Your task to perform on an android device: Go to display settings Image 0: 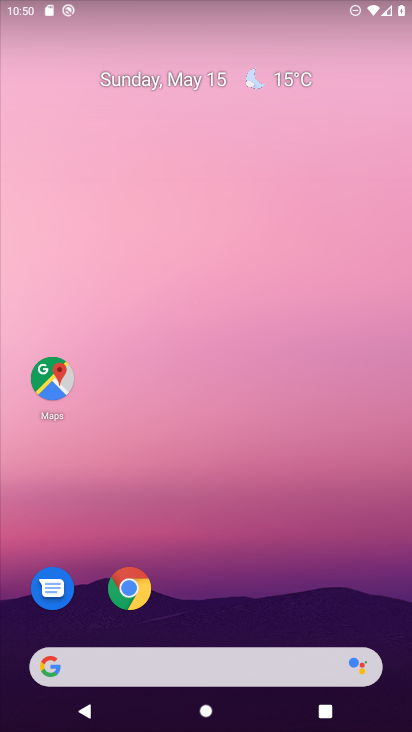
Step 0: drag from (234, 655) to (349, 5)
Your task to perform on an android device: Go to display settings Image 1: 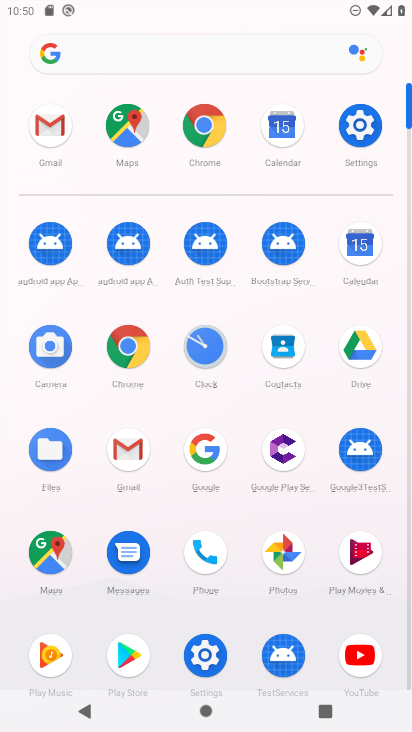
Step 1: click (363, 129)
Your task to perform on an android device: Go to display settings Image 2: 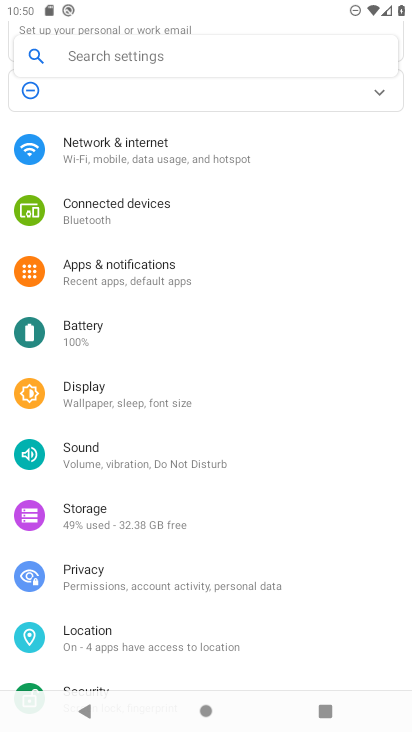
Step 2: click (110, 394)
Your task to perform on an android device: Go to display settings Image 3: 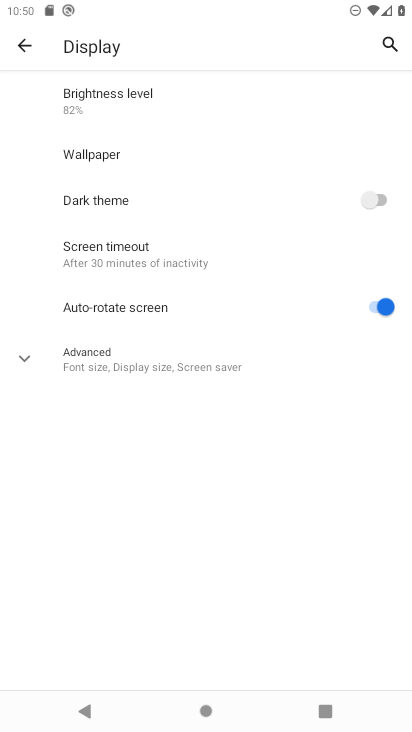
Step 3: task complete